Your task to perform on an android device: make emails show in primary in the gmail app Image 0: 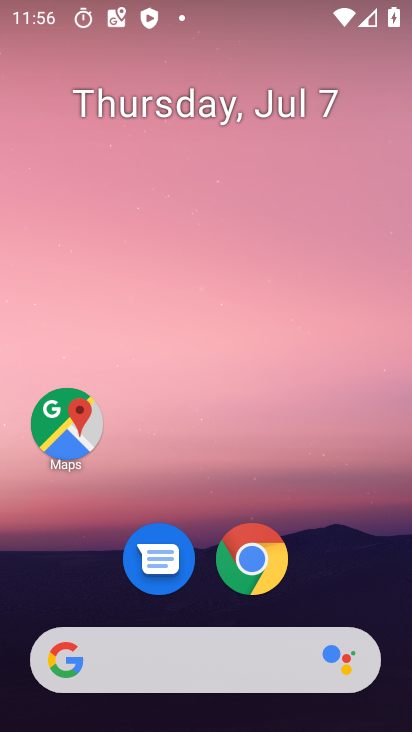
Step 0: drag from (332, 540) to (357, 118)
Your task to perform on an android device: make emails show in primary in the gmail app Image 1: 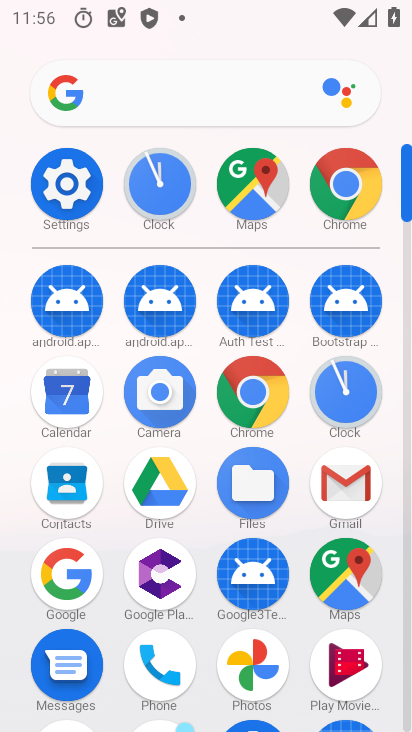
Step 1: click (371, 468)
Your task to perform on an android device: make emails show in primary in the gmail app Image 2: 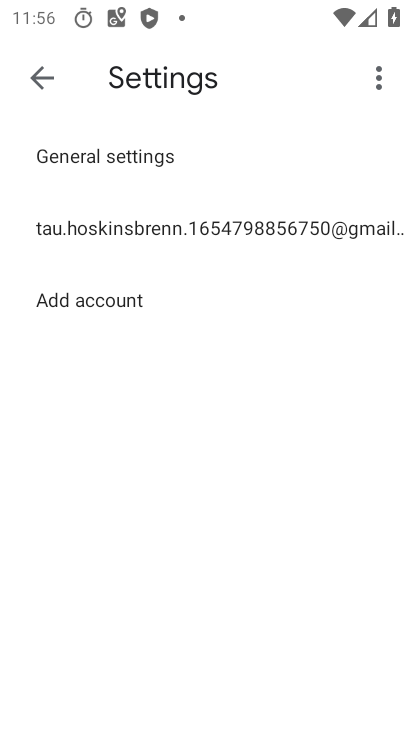
Step 2: press back button
Your task to perform on an android device: make emails show in primary in the gmail app Image 3: 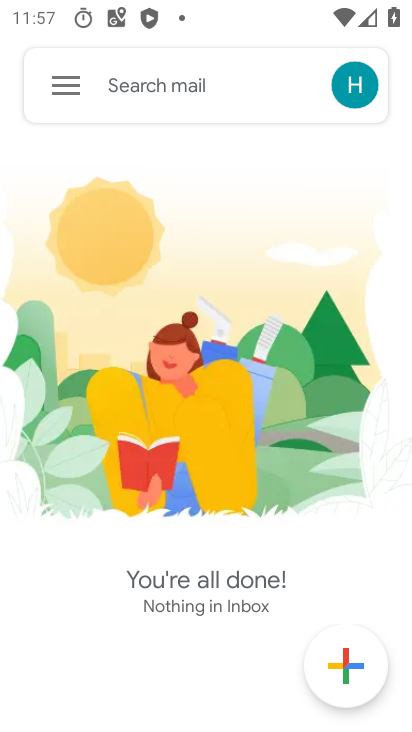
Step 3: click (66, 90)
Your task to perform on an android device: make emails show in primary in the gmail app Image 4: 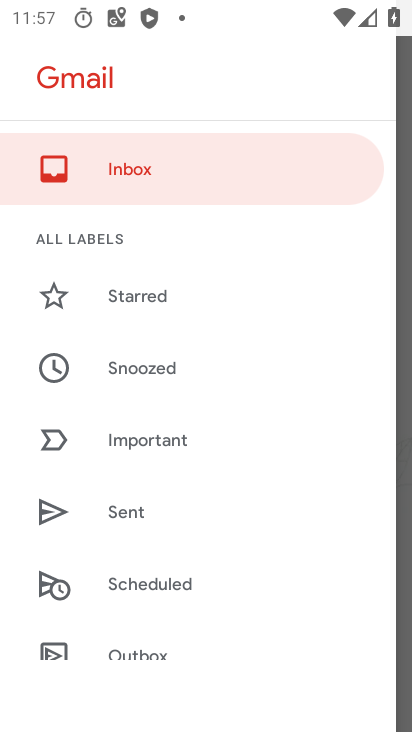
Step 4: drag from (231, 445) to (236, 327)
Your task to perform on an android device: make emails show in primary in the gmail app Image 5: 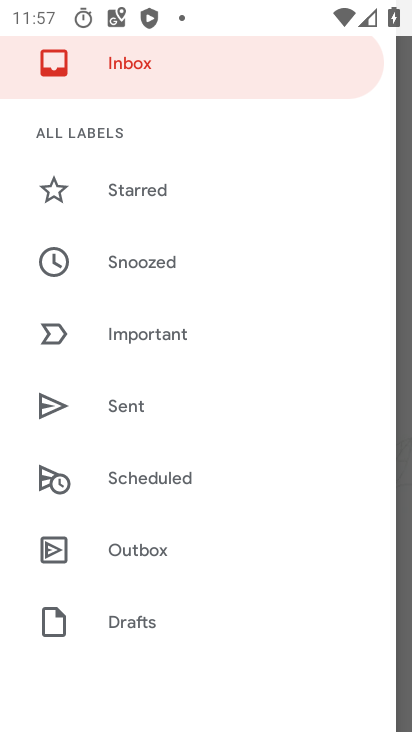
Step 5: drag from (287, 509) to (285, 384)
Your task to perform on an android device: make emails show in primary in the gmail app Image 6: 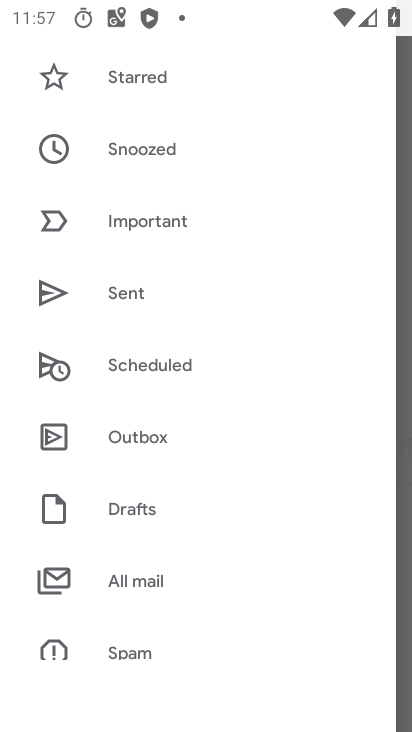
Step 6: drag from (285, 462) to (278, 336)
Your task to perform on an android device: make emails show in primary in the gmail app Image 7: 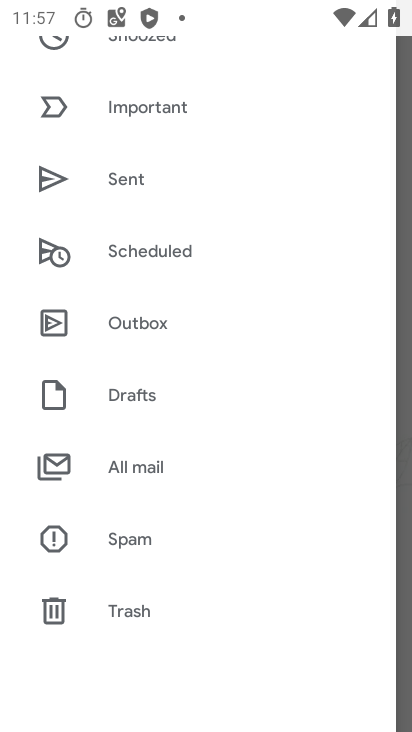
Step 7: drag from (287, 500) to (290, 355)
Your task to perform on an android device: make emails show in primary in the gmail app Image 8: 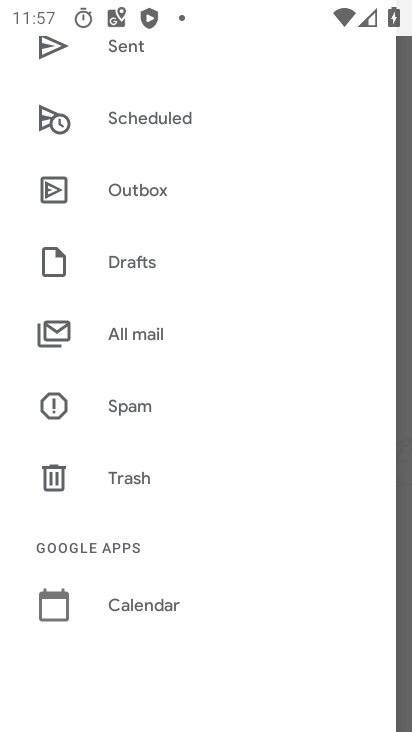
Step 8: drag from (277, 507) to (288, 170)
Your task to perform on an android device: make emails show in primary in the gmail app Image 9: 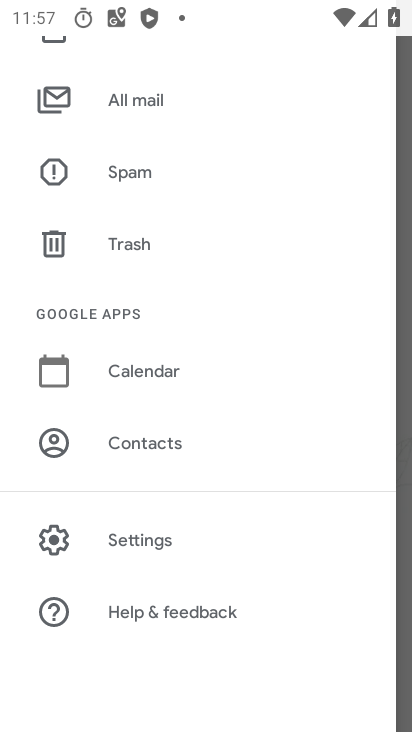
Step 9: click (179, 536)
Your task to perform on an android device: make emails show in primary in the gmail app Image 10: 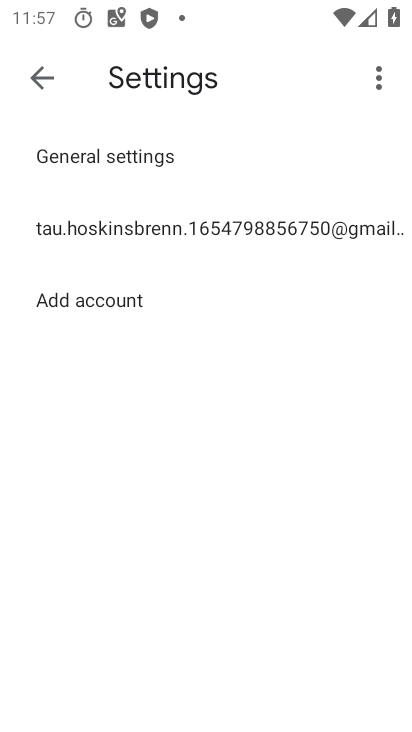
Step 10: click (237, 236)
Your task to perform on an android device: make emails show in primary in the gmail app Image 11: 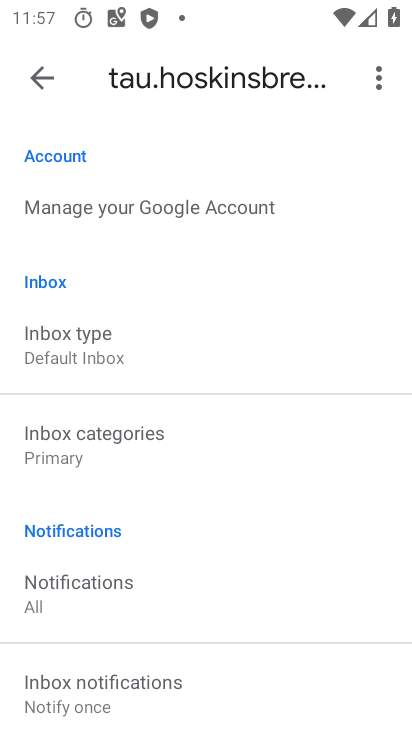
Step 11: click (142, 445)
Your task to perform on an android device: make emails show in primary in the gmail app Image 12: 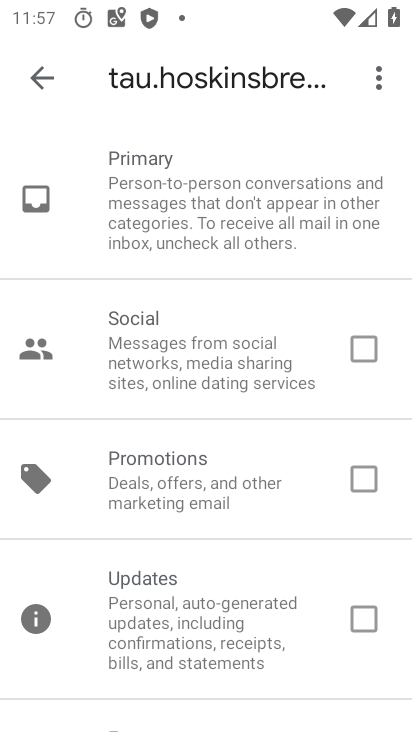
Step 12: task complete